Your task to perform on an android device: Go to internet settings Image 0: 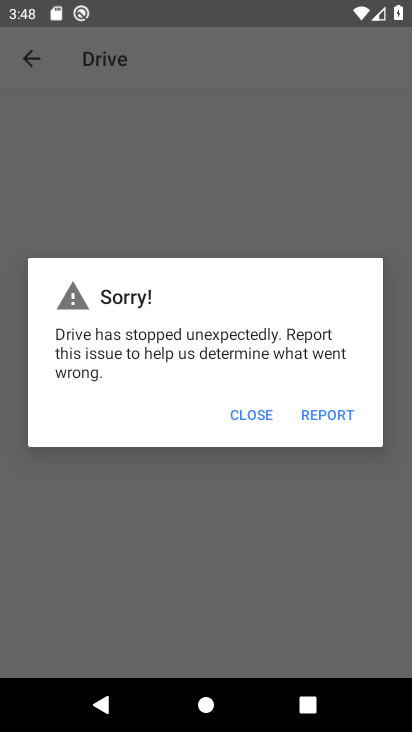
Step 0: press home button
Your task to perform on an android device: Go to internet settings Image 1: 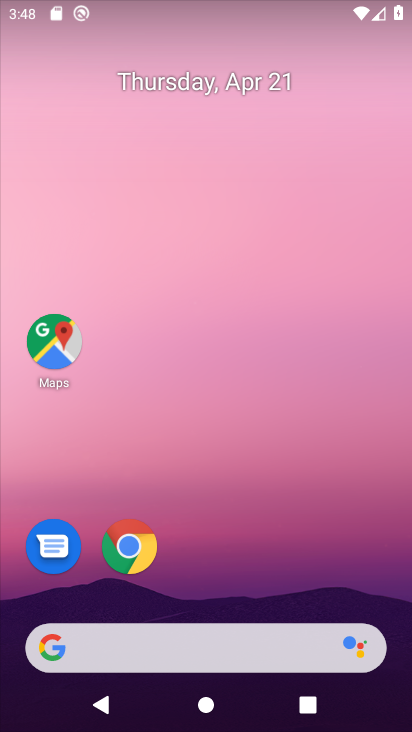
Step 1: drag from (282, 608) to (321, 74)
Your task to perform on an android device: Go to internet settings Image 2: 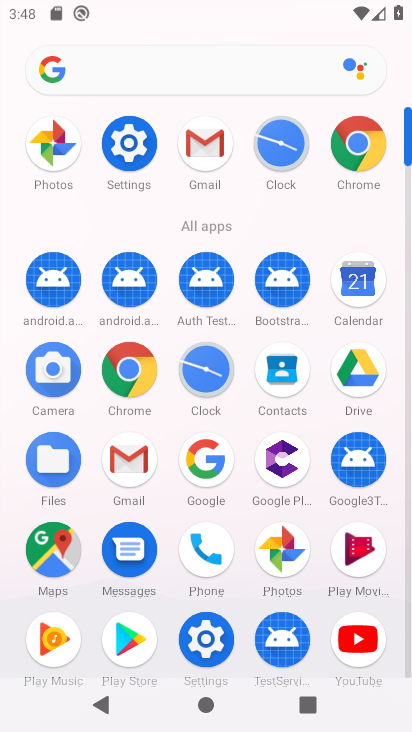
Step 2: click (130, 139)
Your task to perform on an android device: Go to internet settings Image 3: 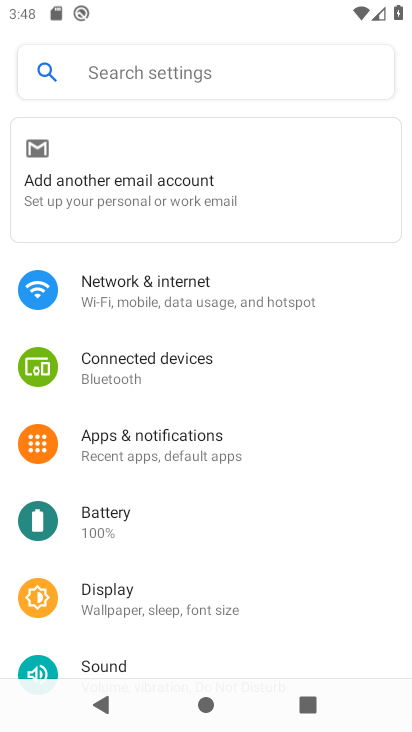
Step 3: click (146, 278)
Your task to perform on an android device: Go to internet settings Image 4: 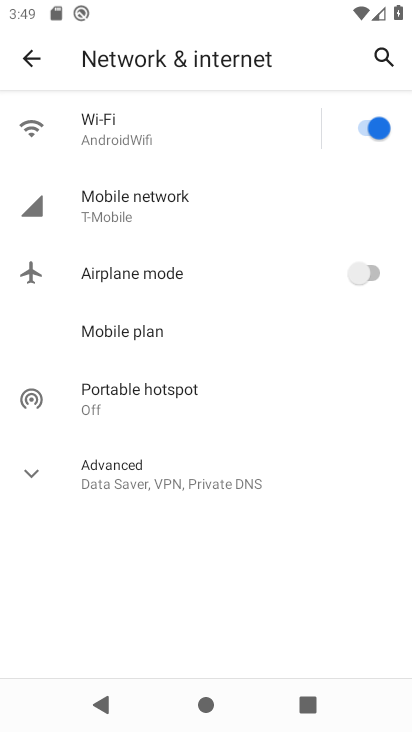
Step 4: task complete